Your task to perform on an android device: Go to Maps Image 0: 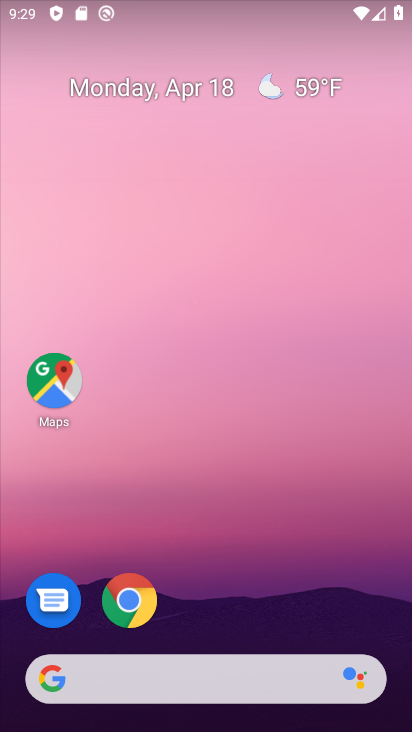
Step 0: click (53, 376)
Your task to perform on an android device: Go to Maps Image 1: 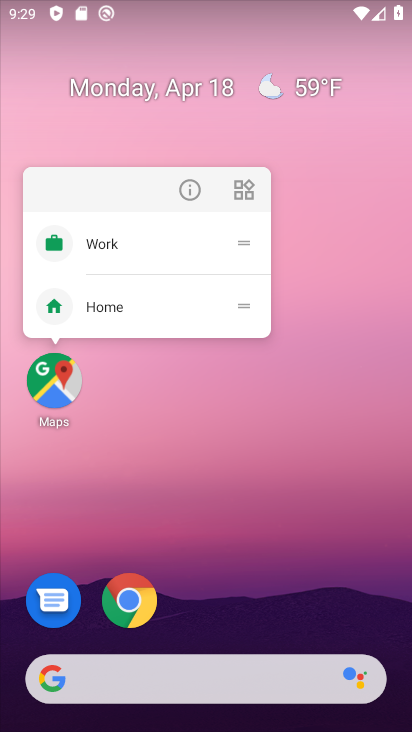
Step 1: drag from (290, 604) to (161, 10)
Your task to perform on an android device: Go to Maps Image 2: 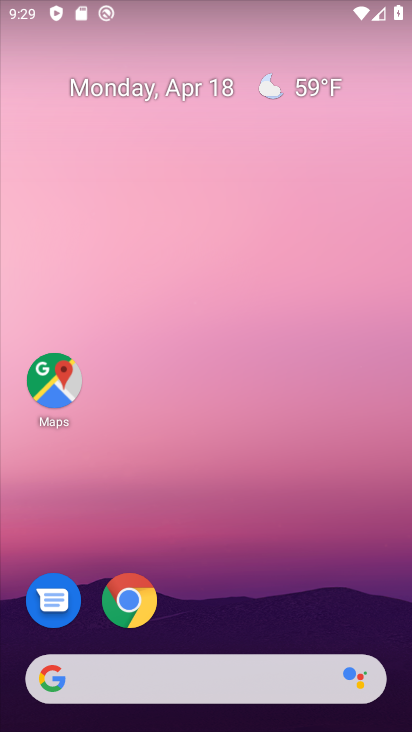
Step 2: drag from (209, 559) to (168, 0)
Your task to perform on an android device: Go to Maps Image 3: 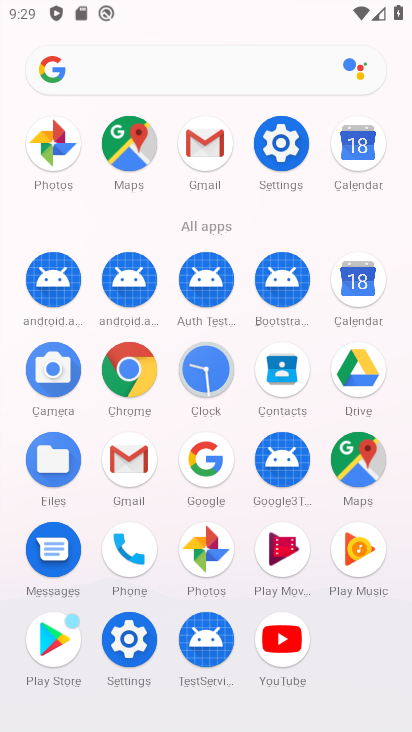
Step 3: click (116, 152)
Your task to perform on an android device: Go to Maps Image 4: 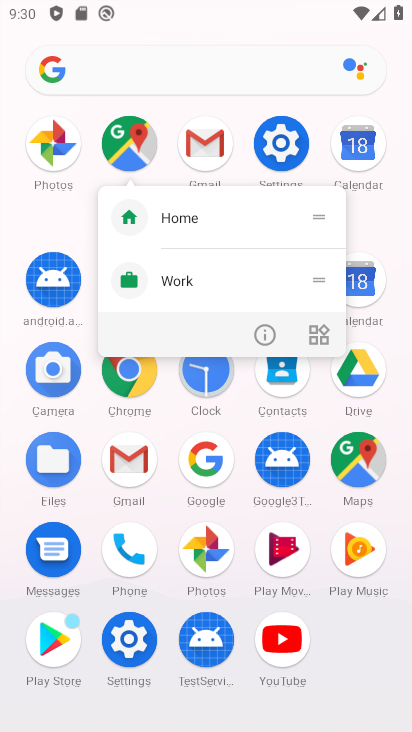
Step 4: click (129, 152)
Your task to perform on an android device: Go to Maps Image 5: 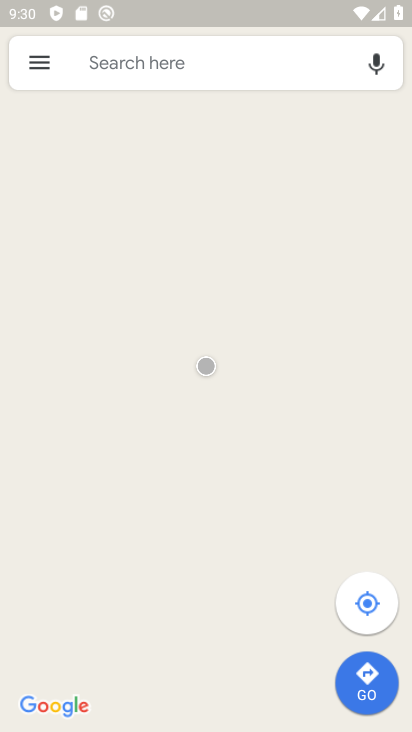
Step 5: task complete